Your task to perform on an android device: What's the weather going to be this weekend? Image 0: 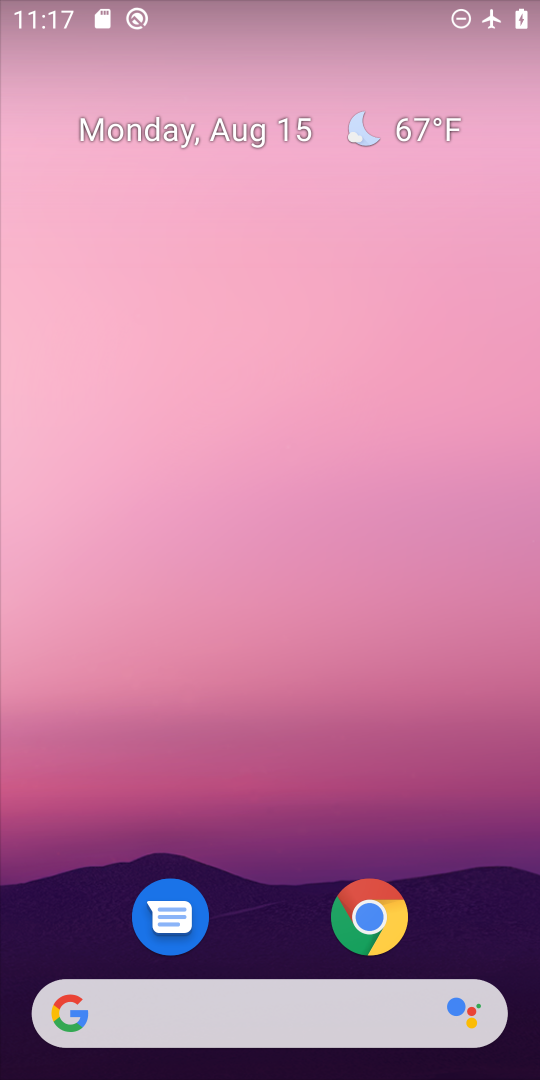
Step 0: drag from (277, 892) to (344, 131)
Your task to perform on an android device: What's the weather going to be this weekend? Image 1: 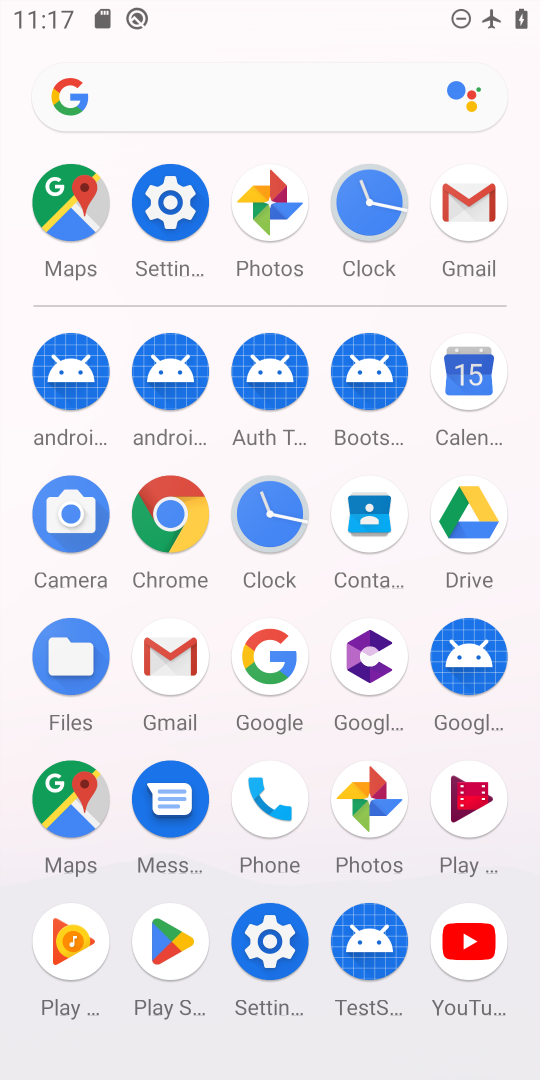
Step 1: press back button
Your task to perform on an android device: What's the weather going to be this weekend? Image 2: 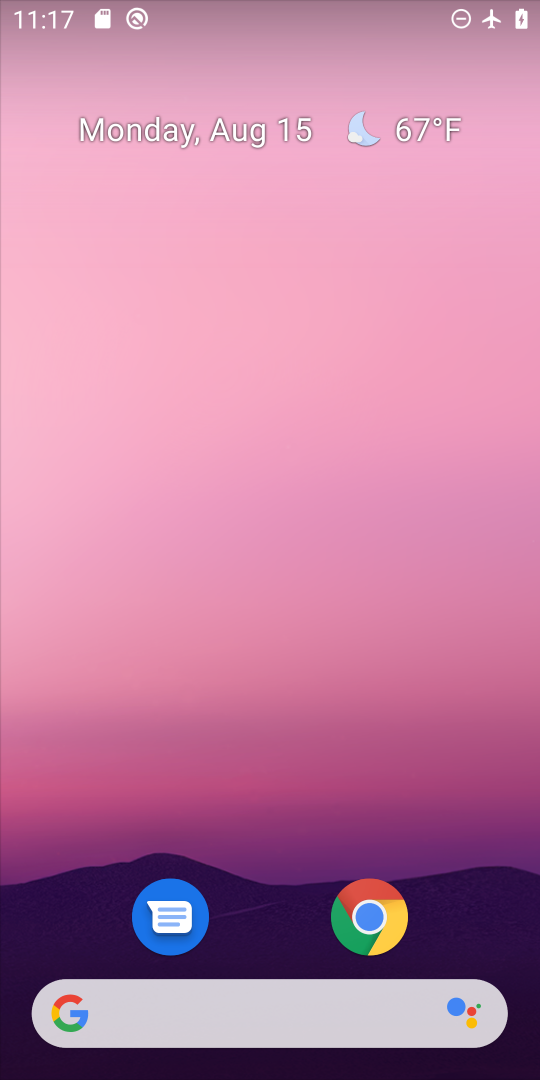
Step 2: click (438, 130)
Your task to perform on an android device: What's the weather going to be this weekend? Image 3: 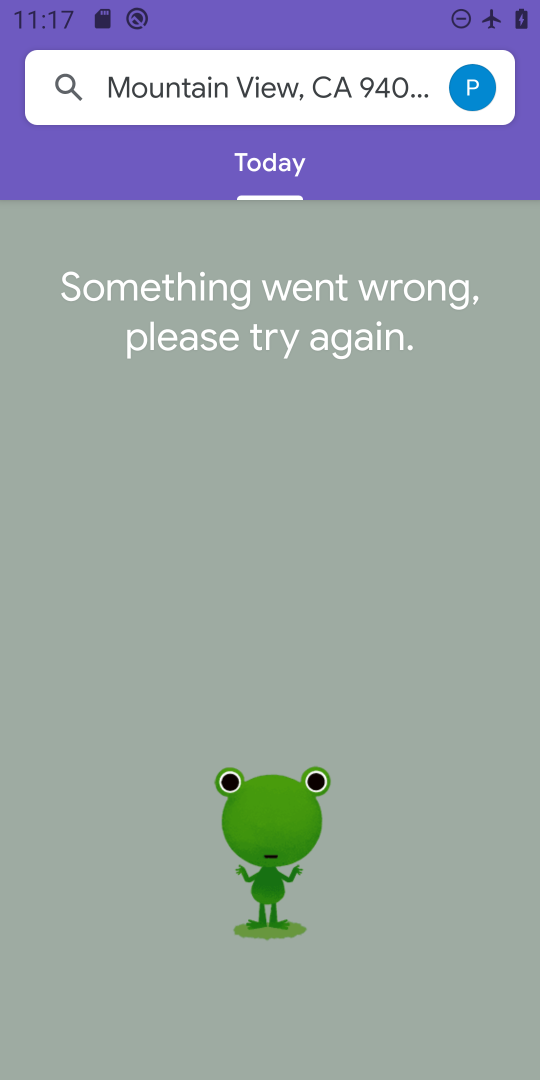
Step 3: task complete